Your task to perform on an android device: turn on wifi Image 0: 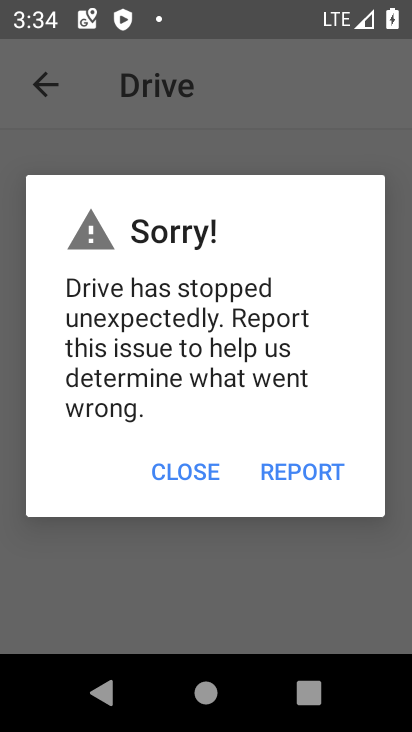
Step 0: press home button
Your task to perform on an android device: turn on wifi Image 1: 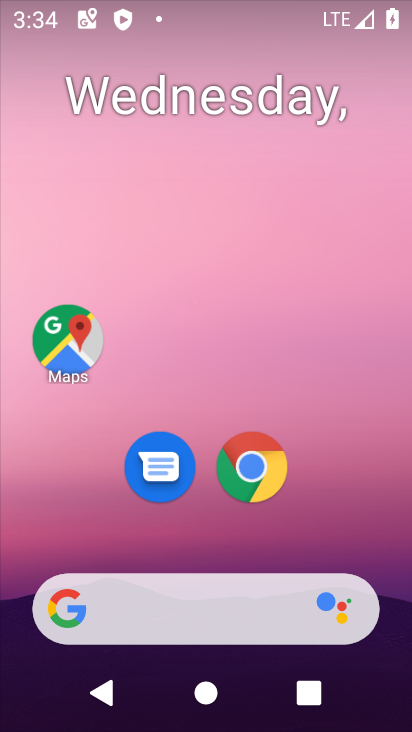
Step 1: drag from (388, 595) to (333, 112)
Your task to perform on an android device: turn on wifi Image 2: 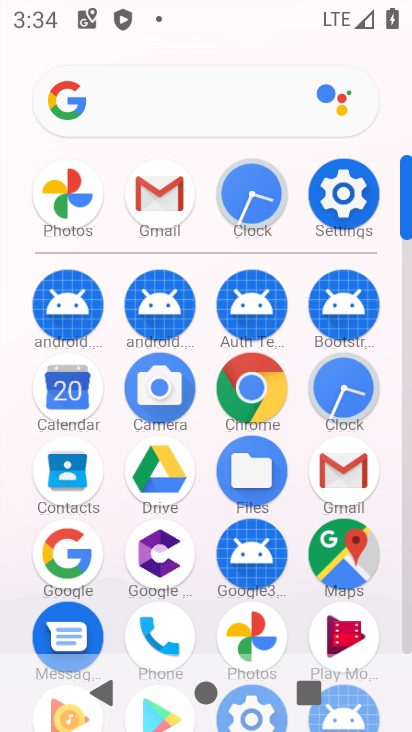
Step 2: click (404, 642)
Your task to perform on an android device: turn on wifi Image 3: 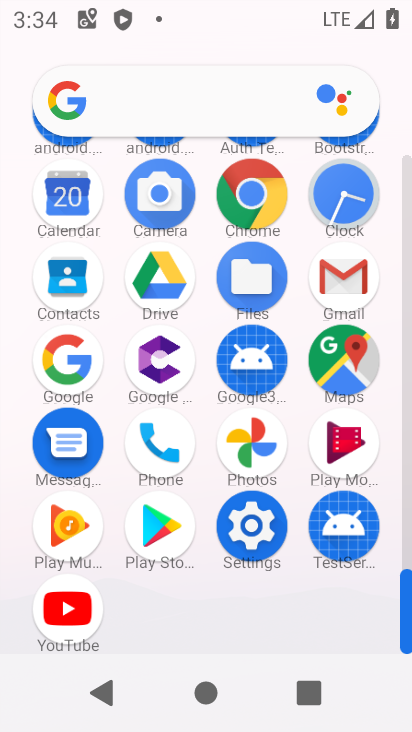
Step 3: click (249, 528)
Your task to perform on an android device: turn on wifi Image 4: 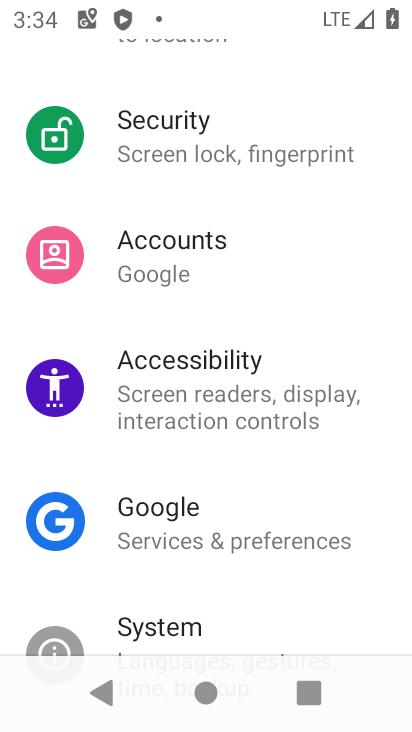
Step 4: drag from (371, 174) to (353, 389)
Your task to perform on an android device: turn on wifi Image 5: 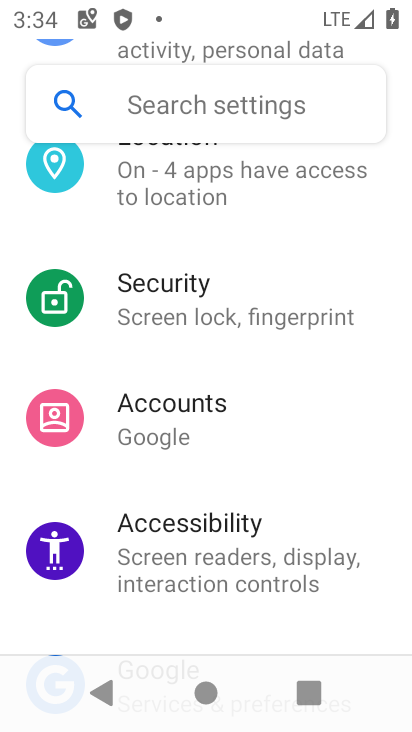
Step 5: drag from (366, 213) to (332, 433)
Your task to perform on an android device: turn on wifi Image 6: 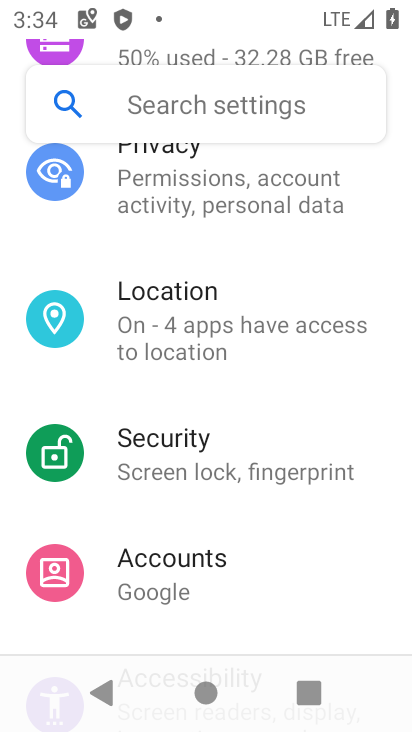
Step 6: drag from (357, 227) to (342, 509)
Your task to perform on an android device: turn on wifi Image 7: 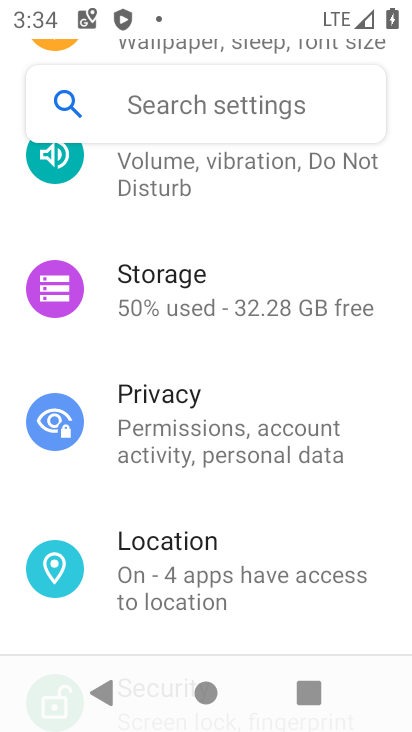
Step 7: drag from (372, 254) to (358, 523)
Your task to perform on an android device: turn on wifi Image 8: 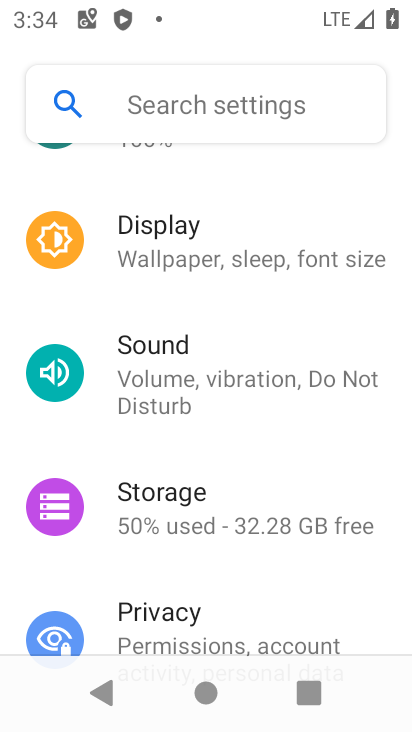
Step 8: drag from (376, 237) to (359, 554)
Your task to perform on an android device: turn on wifi Image 9: 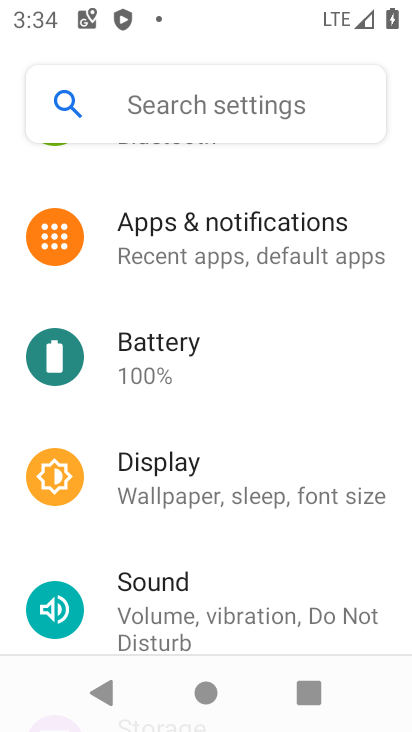
Step 9: drag from (363, 253) to (349, 507)
Your task to perform on an android device: turn on wifi Image 10: 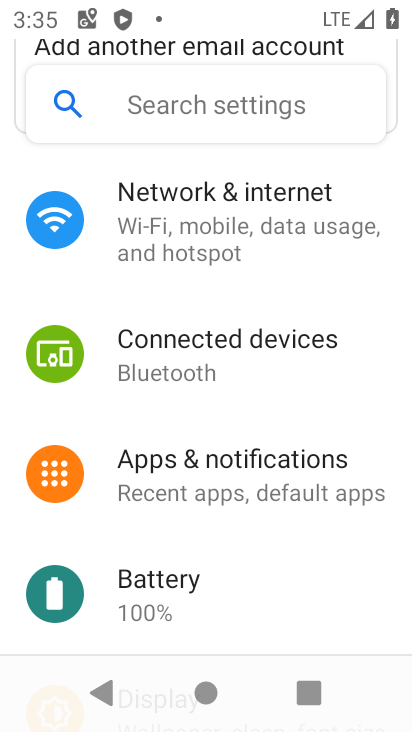
Step 10: click (190, 212)
Your task to perform on an android device: turn on wifi Image 11: 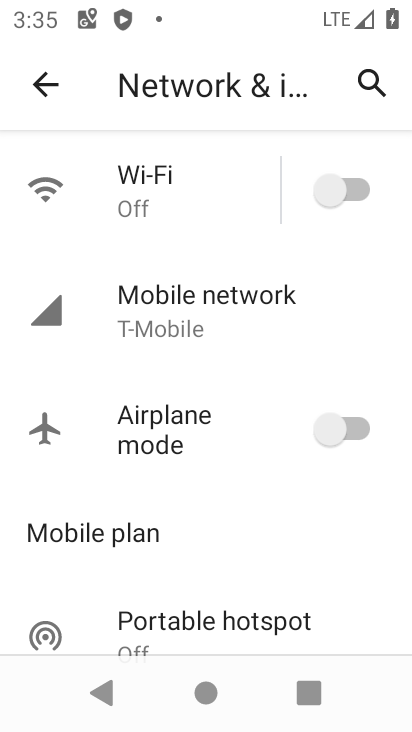
Step 11: click (360, 181)
Your task to perform on an android device: turn on wifi Image 12: 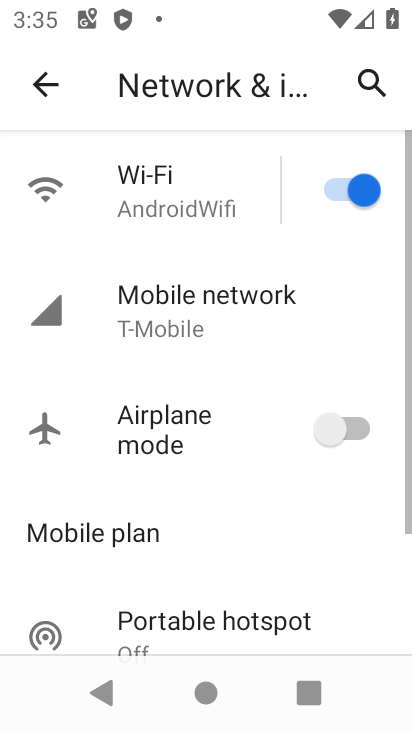
Step 12: task complete